Your task to perform on an android device: Open privacy settings Image 0: 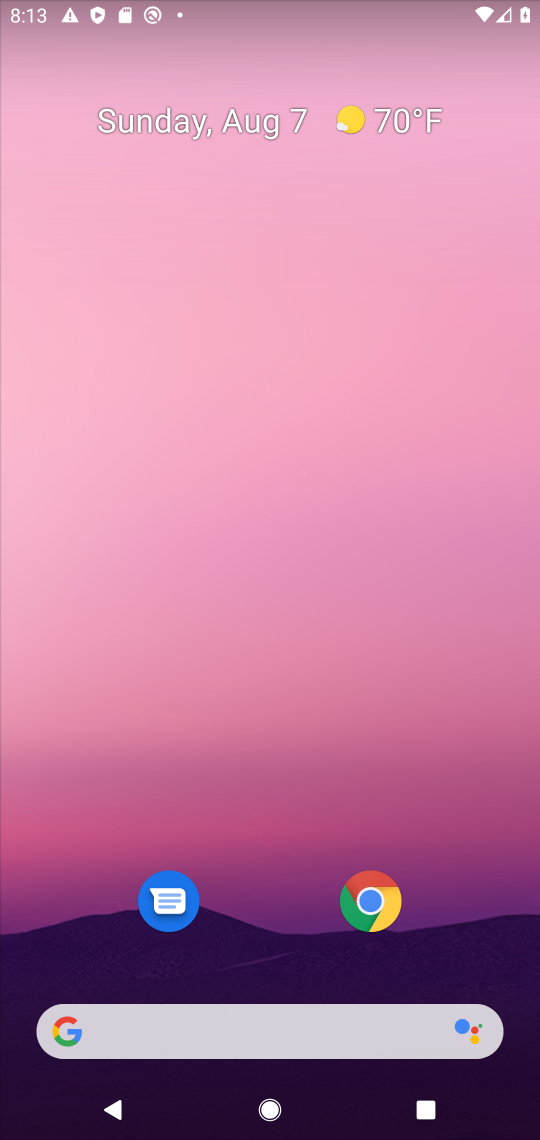
Step 0: drag from (256, 945) to (319, 145)
Your task to perform on an android device: Open privacy settings Image 1: 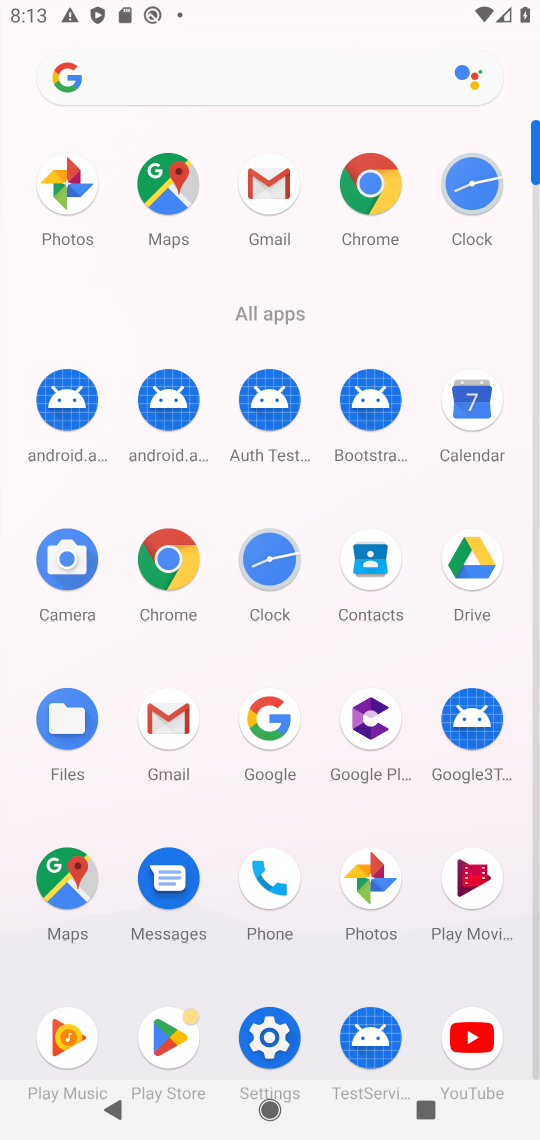
Step 1: click (275, 1043)
Your task to perform on an android device: Open privacy settings Image 2: 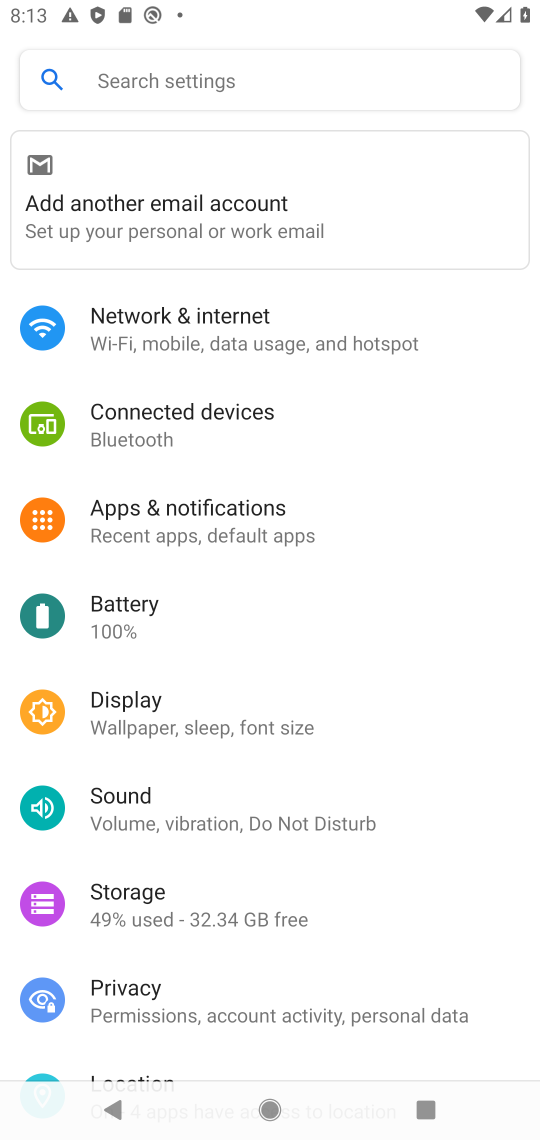
Step 2: click (305, 1012)
Your task to perform on an android device: Open privacy settings Image 3: 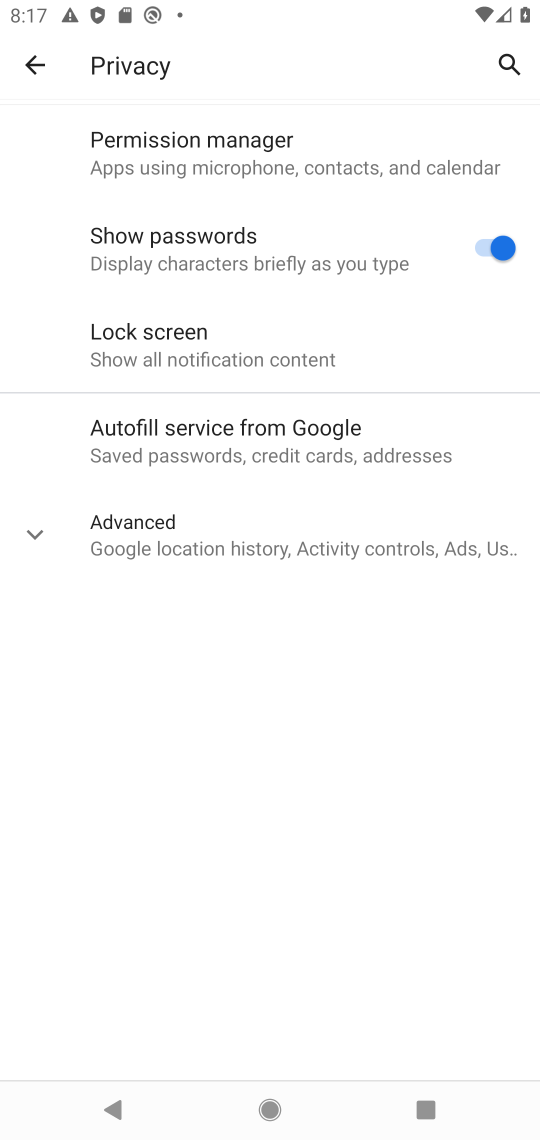
Step 3: task complete